Your task to perform on an android device: Search for duracell triple a on newegg, select the first entry, add it to the cart, then select checkout. Image 0: 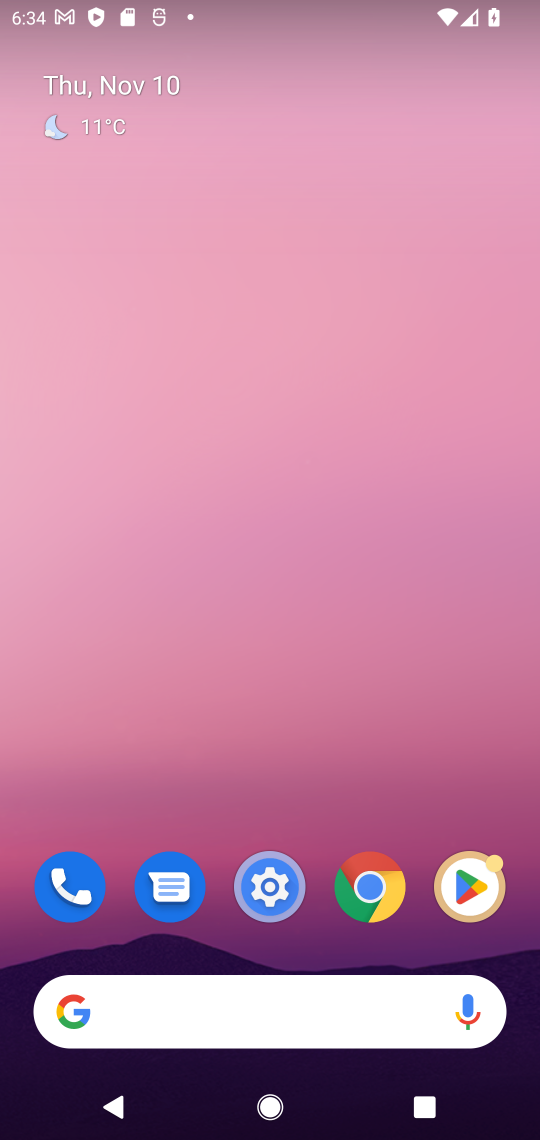
Step 0: click (229, 987)
Your task to perform on an android device: Search for duracell triple a on newegg, select the first entry, add it to the cart, then select checkout. Image 1: 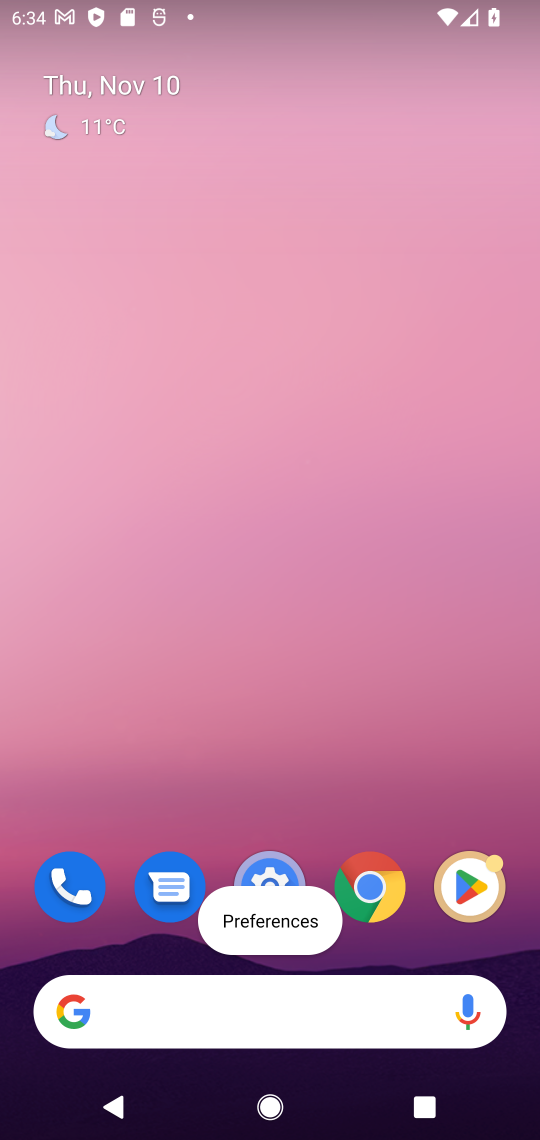
Step 1: click (69, 1012)
Your task to perform on an android device: Search for duracell triple a on newegg, select the first entry, add it to the cart, then select checkout. Image 2: 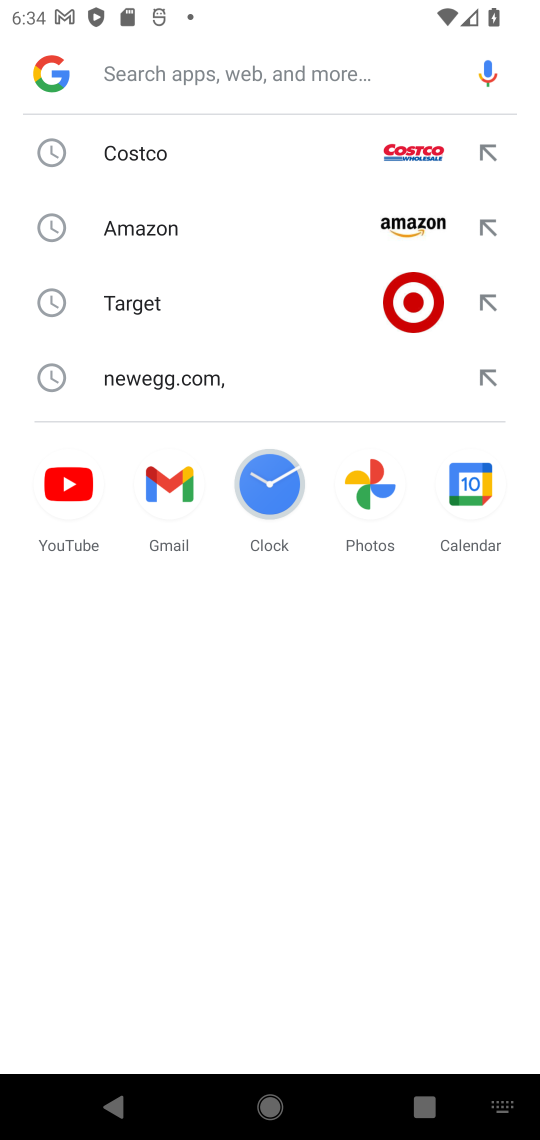
Step 2: click (128, 377)
Your task to perform on an android device: Search for duracell triple a on newegg, select the first entry, add it to the cart, then select checkout. Image 3: 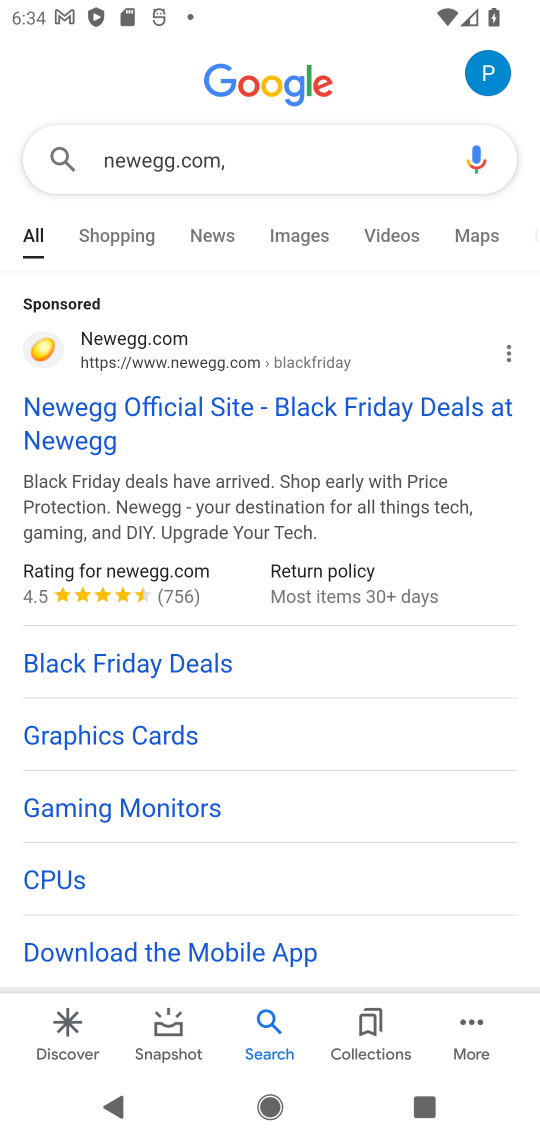
Step 3: click (99, 412)
Your task to perform on an android device: Search for duracell triple a on newegg, select the first entry, add it to the cart, then select checkout. Image 4: 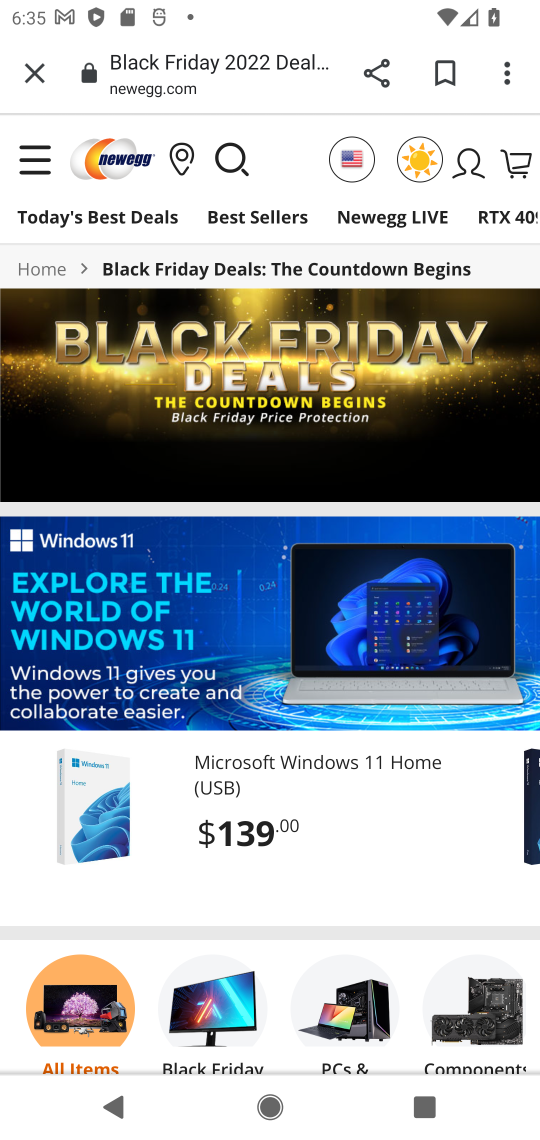
Step 4: click (233, 154)
Your task to perform on an android device: Search for duracell triple a on newegg, select the first entry, add it to the cart, then select checkout. Image 5: 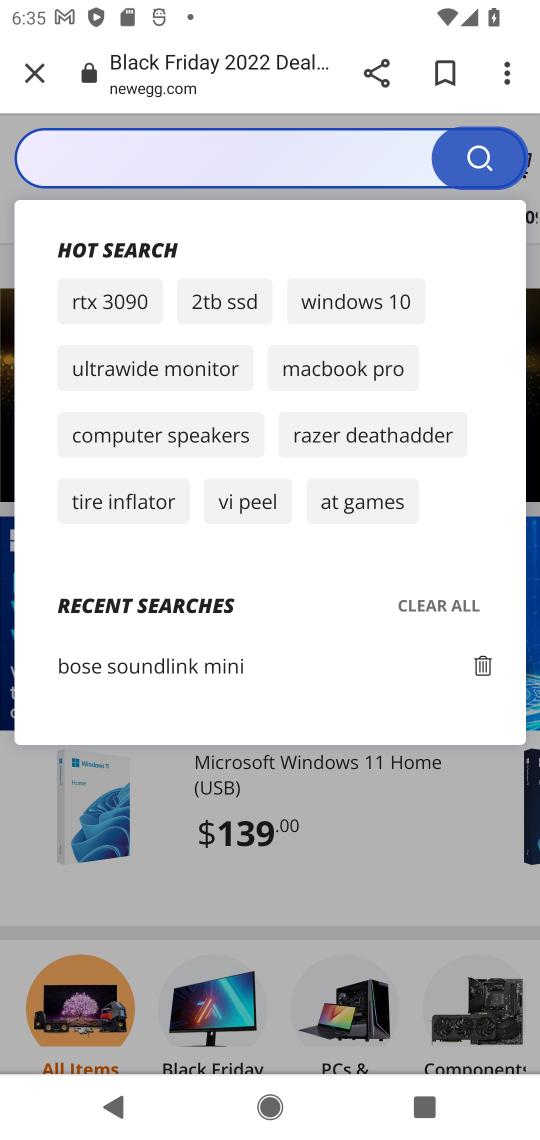
Step 5: click (109, 168)
Your task to perform on an android device: Search for duracell triple a on newegg, select the first entry, add it to the cart, then select checkout. Image 6: 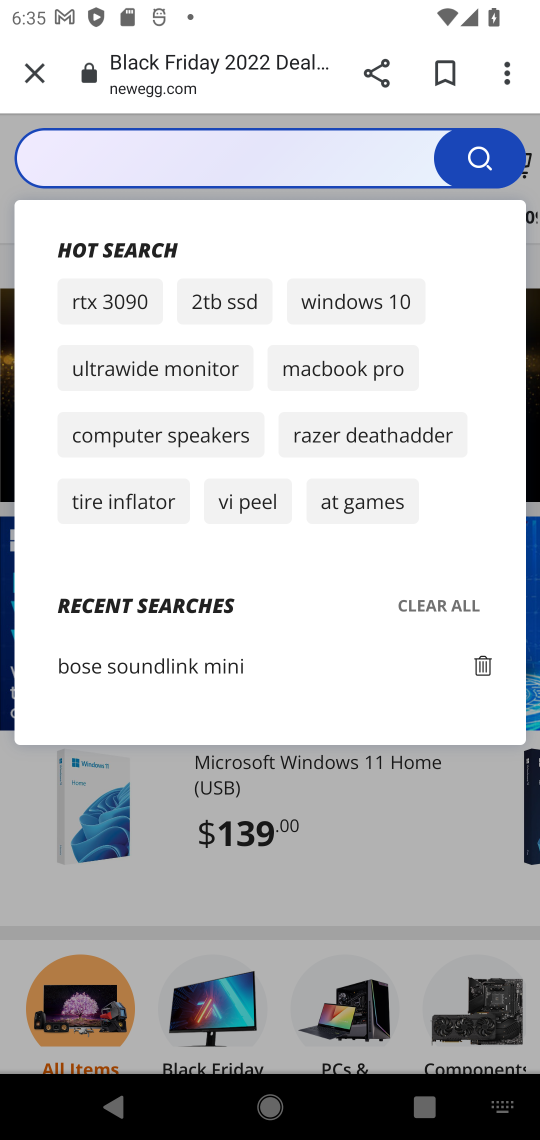
Step 6: type "duracell triple a"
Your task to perform on an android device: Search for duracell triple a on newegg, select the first entry, add it to the cart, then select checkout. Image 7: 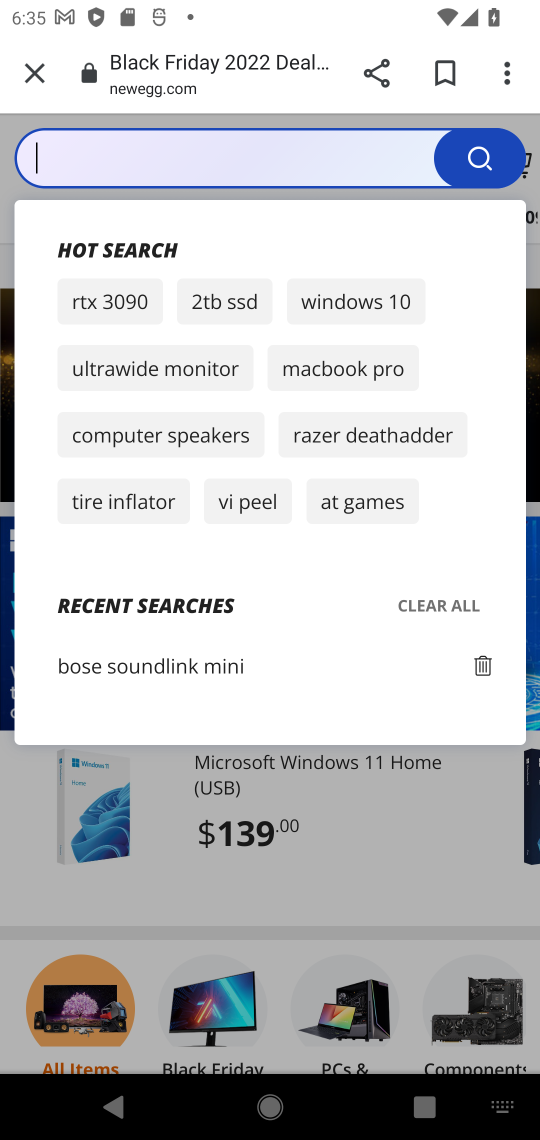
Step 7: type ""
Your task to perform on an android device: Search for duracell triple a on newegg, select the first entry, add it to the cart, then select checkout. Image 8: 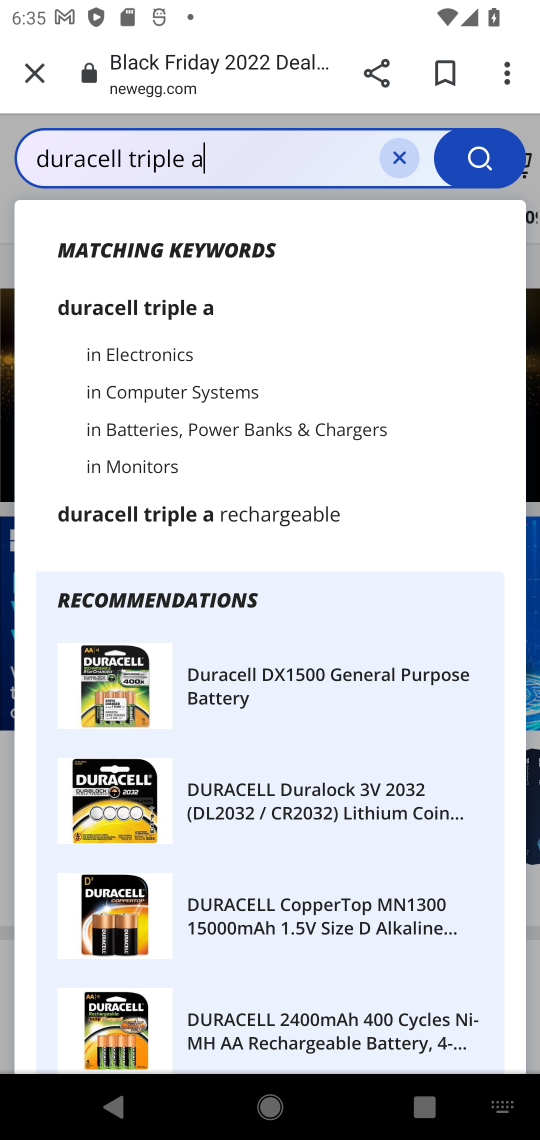
Step 8: click (161, 301)
Your task to perform on an android device: Search for duracell triple a on newegg, select the first entry, add it to the cart, then select checkout. Image 9: 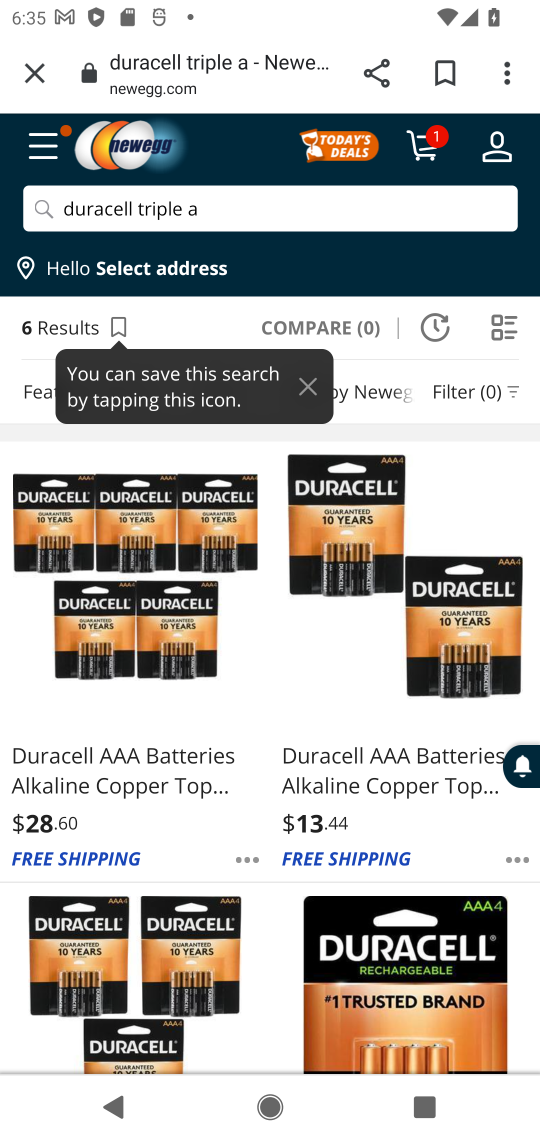
Step 9: click (110, 631)
Your task to perform on an android device: Search for duracell triple a on newegg, select the first entry, add it to the cart, then select checkout. Image 10: 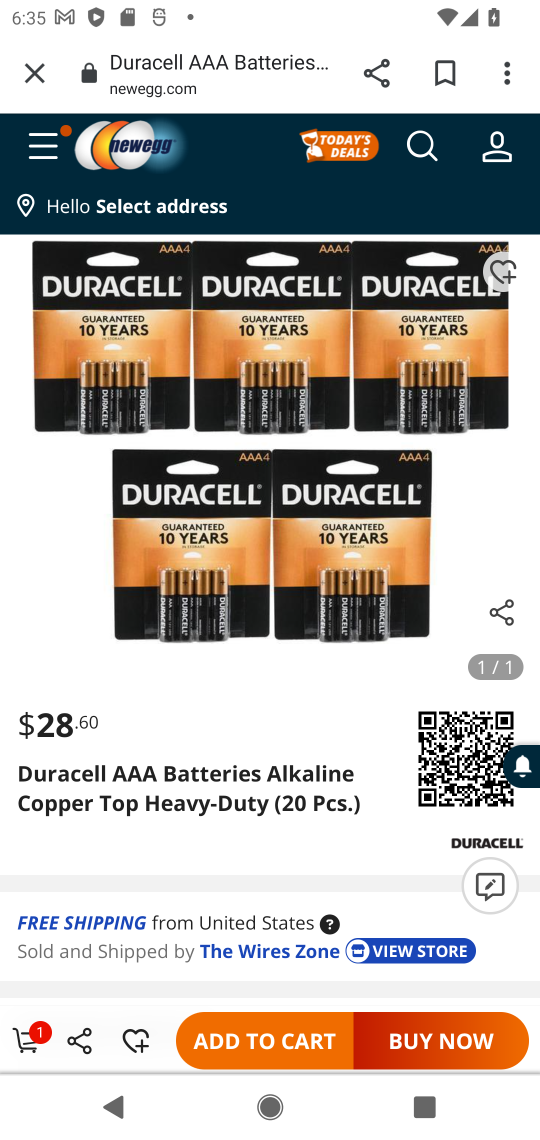
Step 10: click (250, 1039)
Your task to perform on an android device: Search for duracell triple a on newegg, select the first entry, add it to the cart, then select checkout. Image 11: 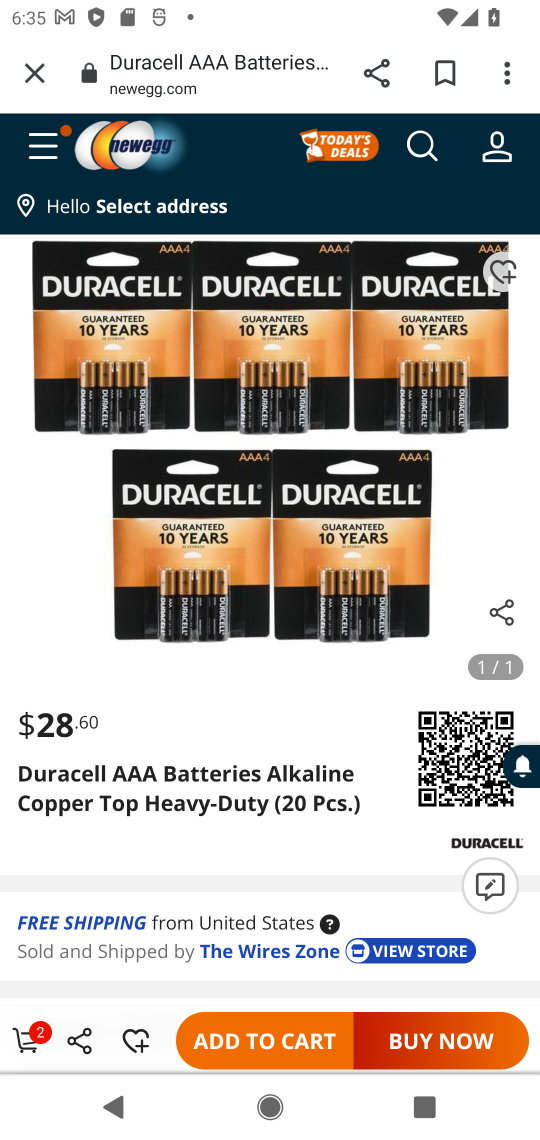
Step 11: click (36, 1029)
Your task to perform on an android device: Search for duracell triple a on newegg, select the first entry, add it to the cart, then select checkout. Image 12: 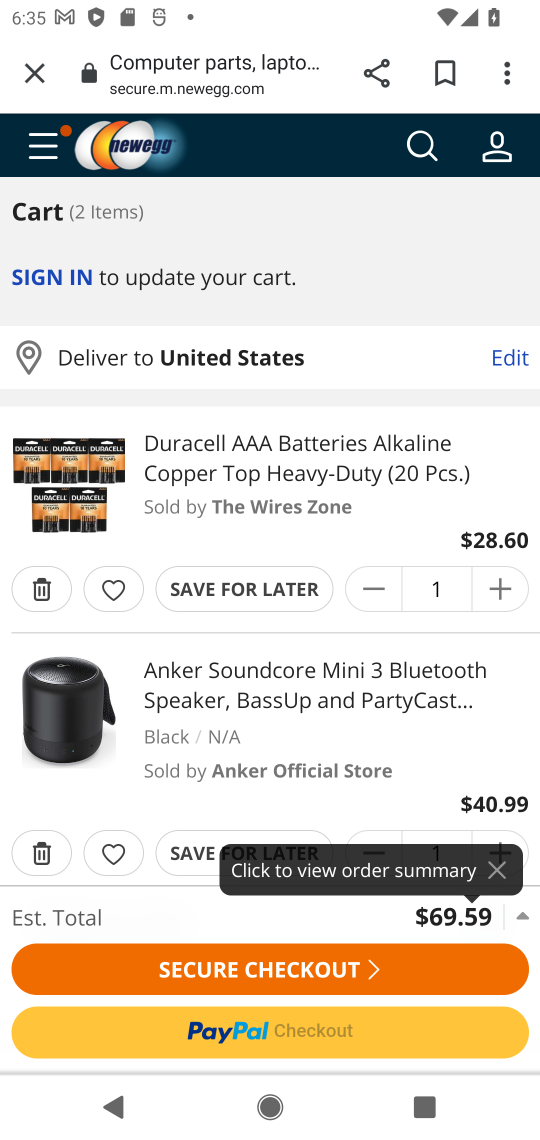
Step 12: click (292, 967)
Your task to perform on an android device: Search for duracell triple a on newegg, select the first entry, add it to the cart, then select checkout. Image 13: 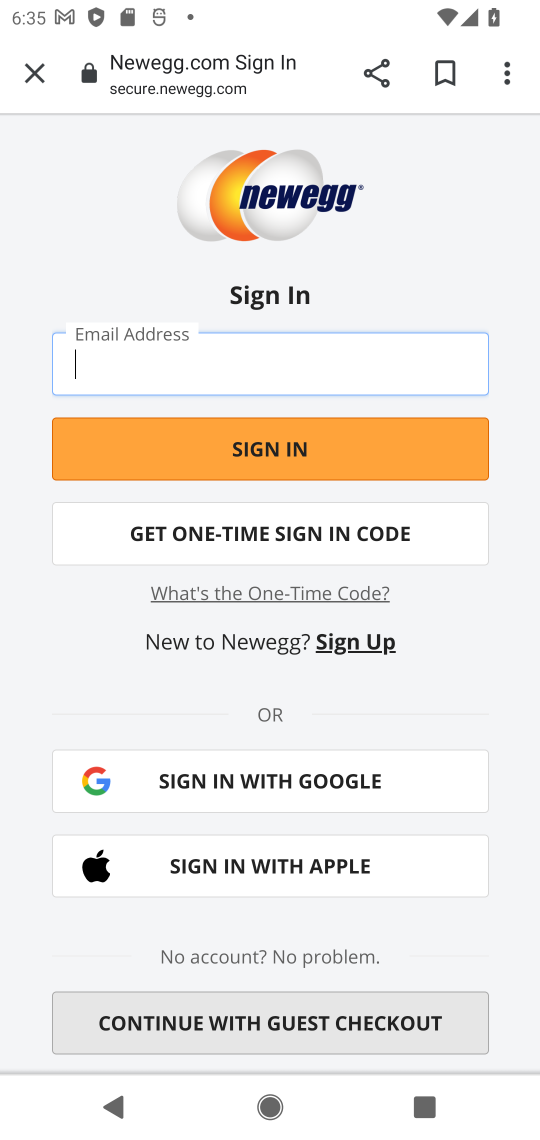
Step 13: task complete